Your task to perform on an android device: change the clock display to digital Image 0: 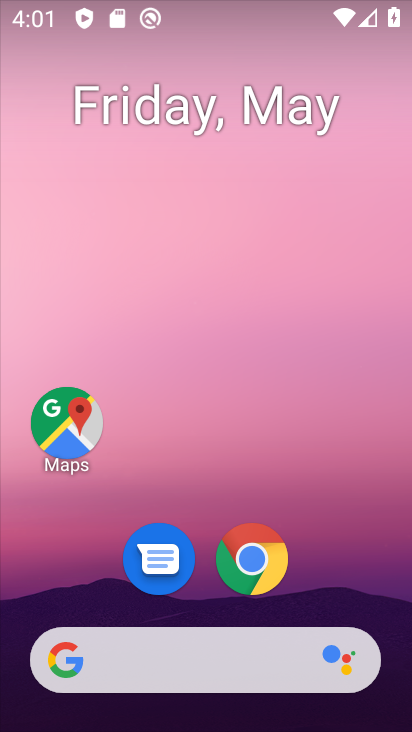
Step 0: drag from (317, 591) to (311, 123)
Your task to perform on an android device: change the clock display to digital Image 1: 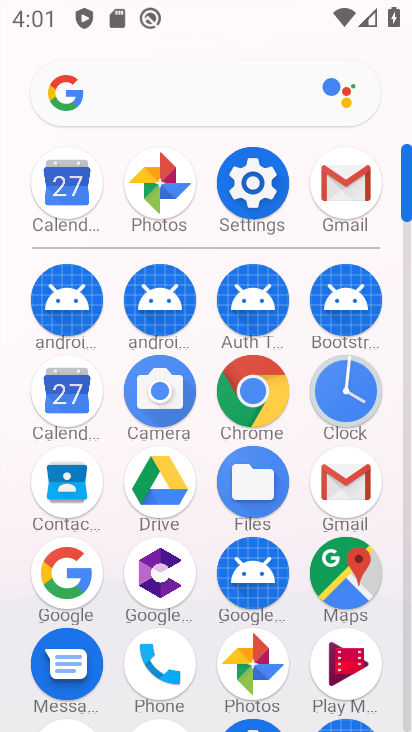
Step 1: click (339, 385)
Your task to perform on an android device: change the clock display to digital Image 2: 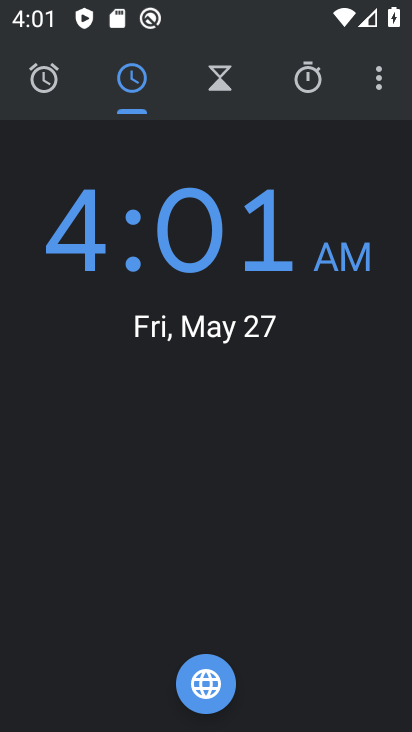
Step 2: click (374, 72)
Your task to perform on an android device: change the clock display to digital Image 3: 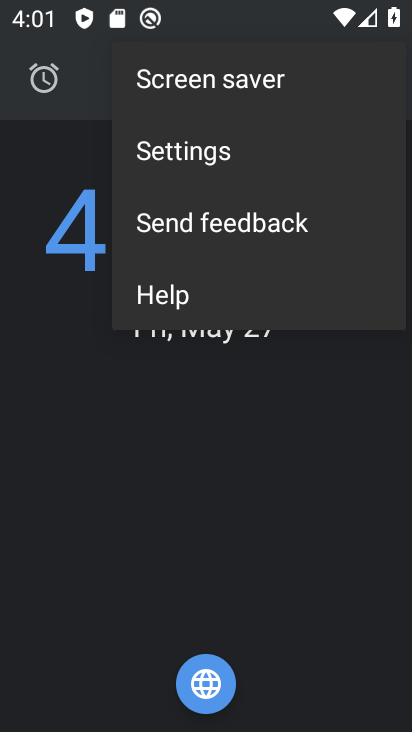
Step 3: click (213, 161)
Your task to perform on an android device: change the clock display to digital Image 4: 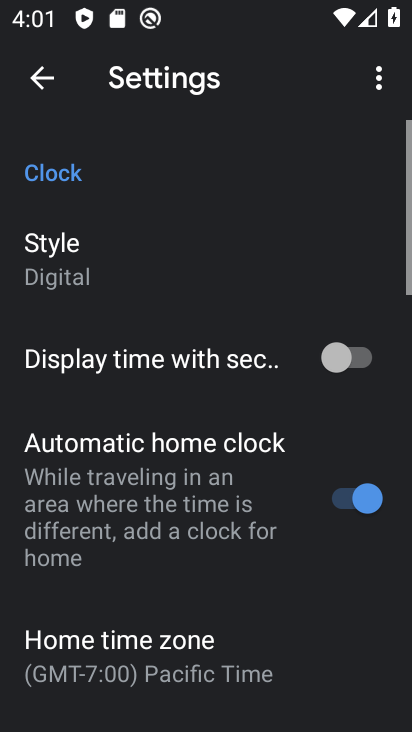
Step 4: click (64, 292)
Your task to perform on an android device: change the clock display to digital Image 5: 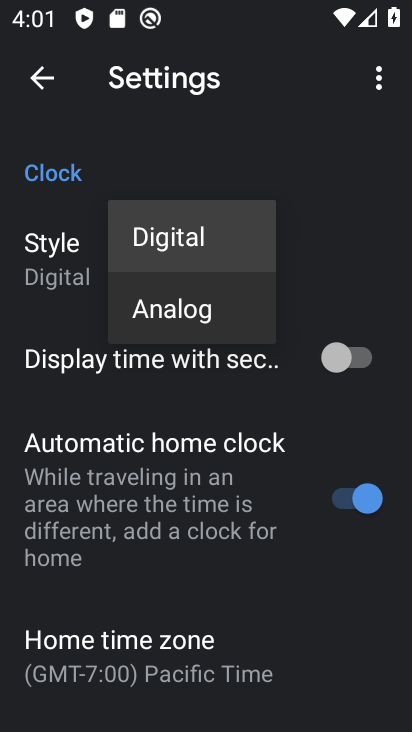
Step 5: click (181, 227)
Your task to perform on an android device: change the clock display to digital Image 6: 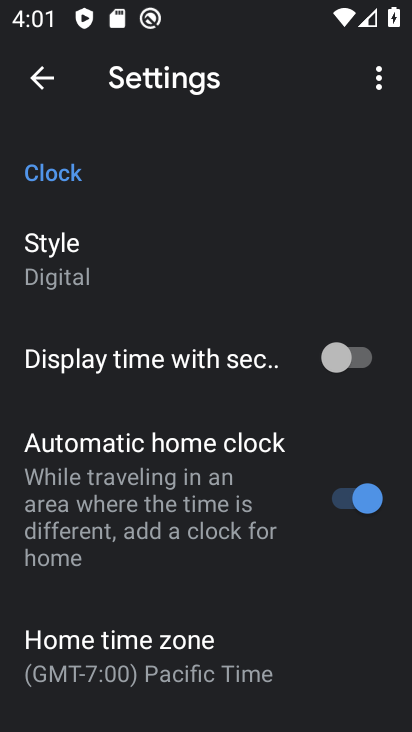
Step 6: task complete